Your task to perform on an android device: turn off javascript in the chrome app Image 0: 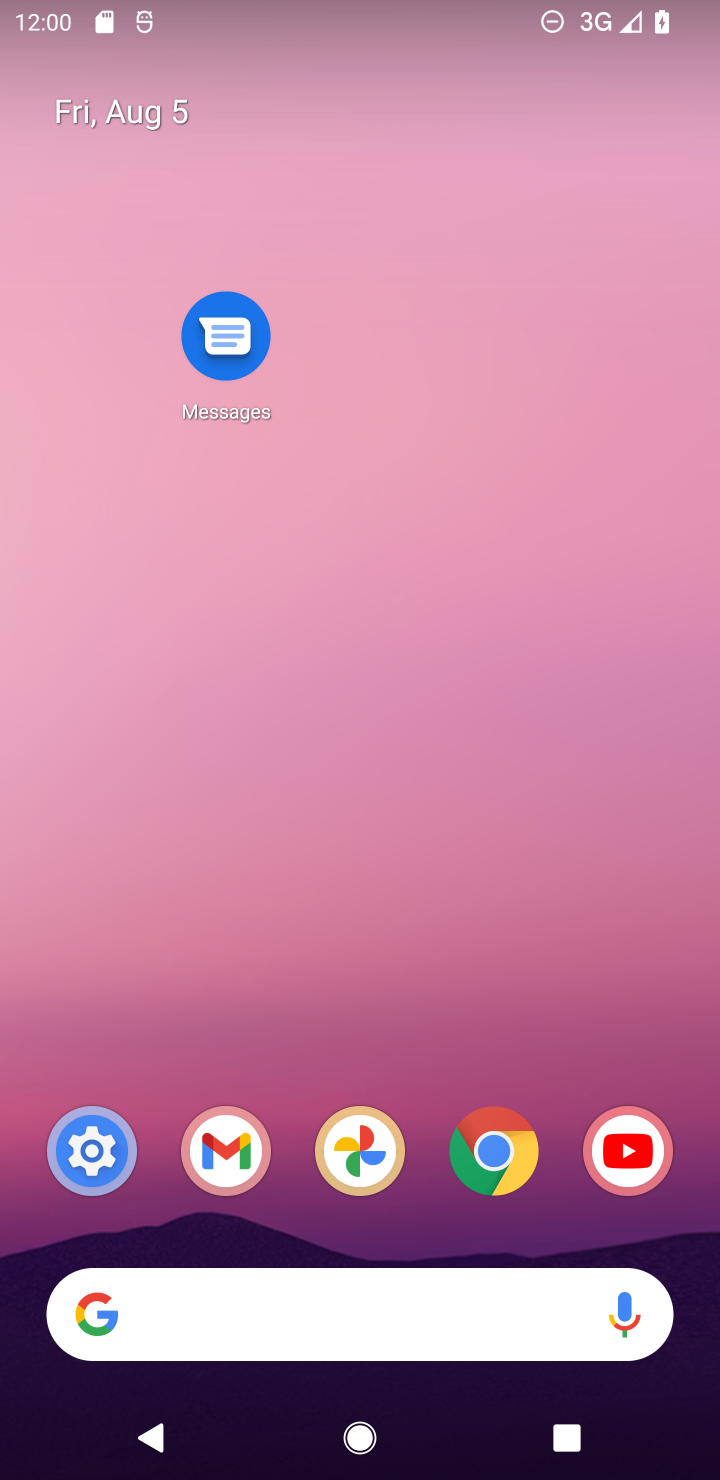
Step 0: click (494, 1154)
Your task to perform on an android device: turn off javascript in the chrome app Image 1: 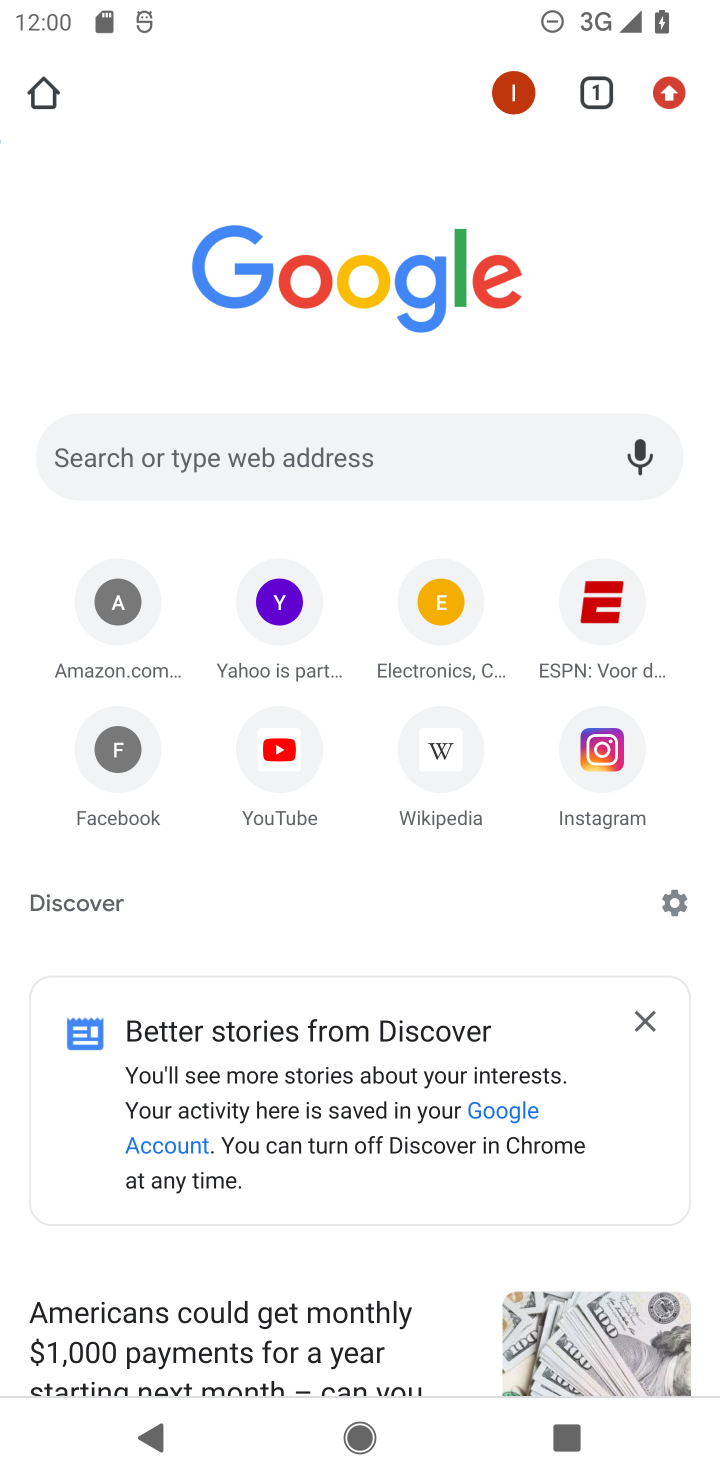
Step 1: click (671, 94)
Your task to perform on an android device: turn off javascript in the chrome app Image 2: 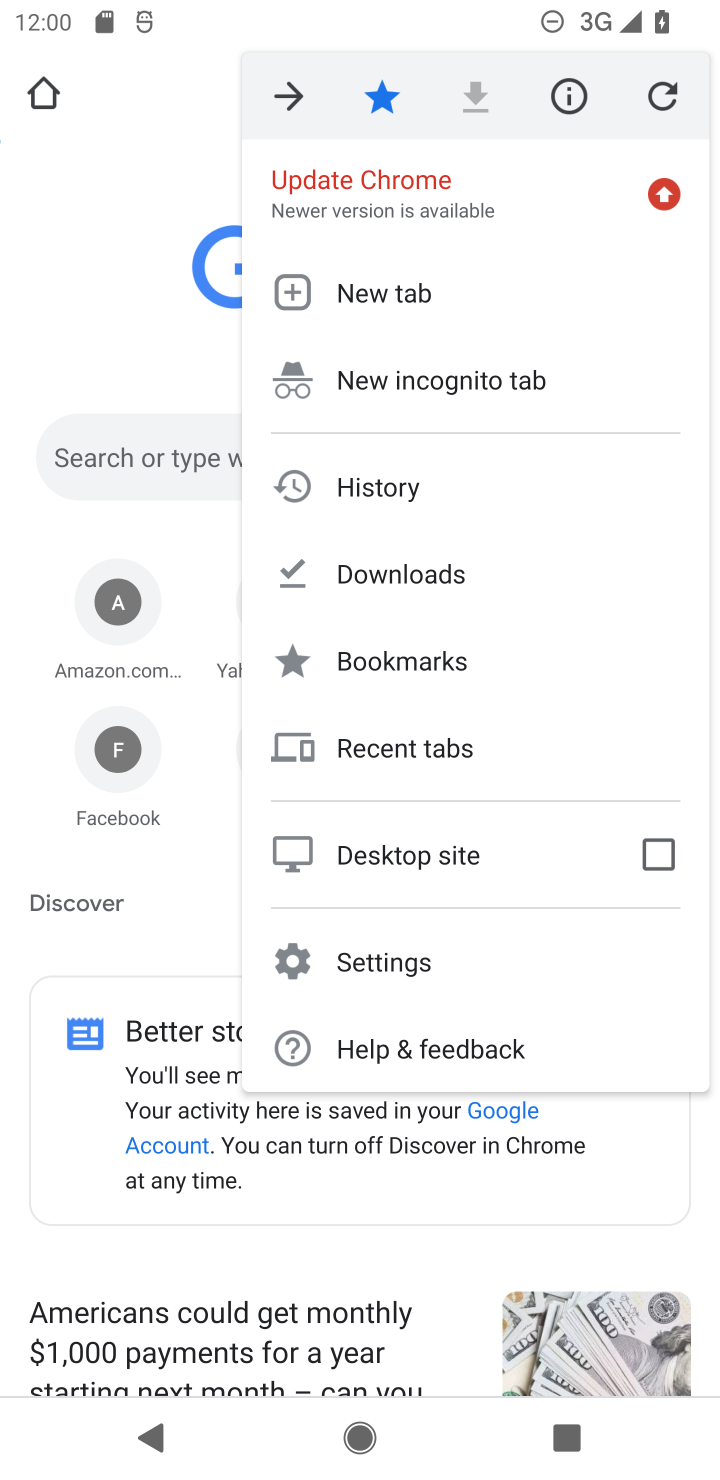
Step 2: click (399, 950)
Your task to perform on an android device: turn off javascript in the chrome app Image 3: 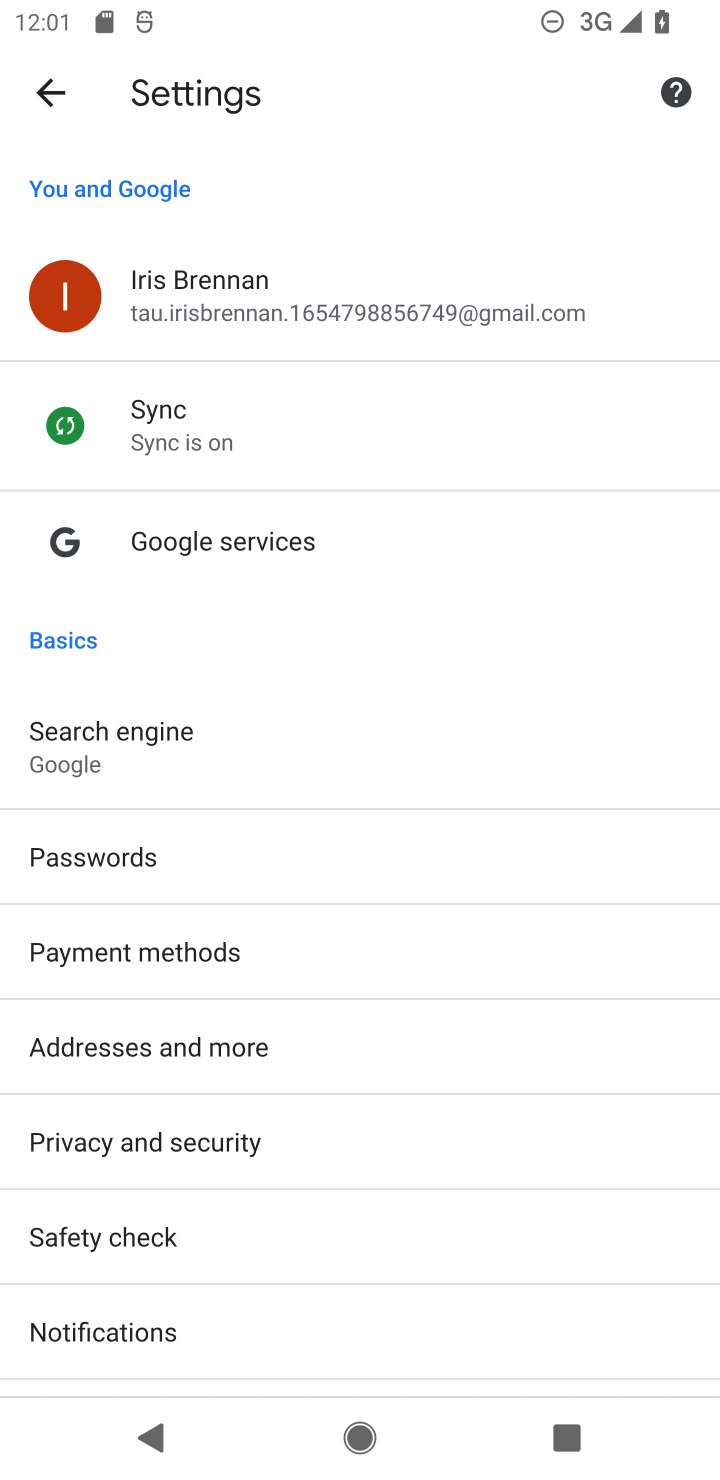
Step 3: click (211, 493)
Your task to perform on an android device: turn off javascript in the chrome app Image 4: 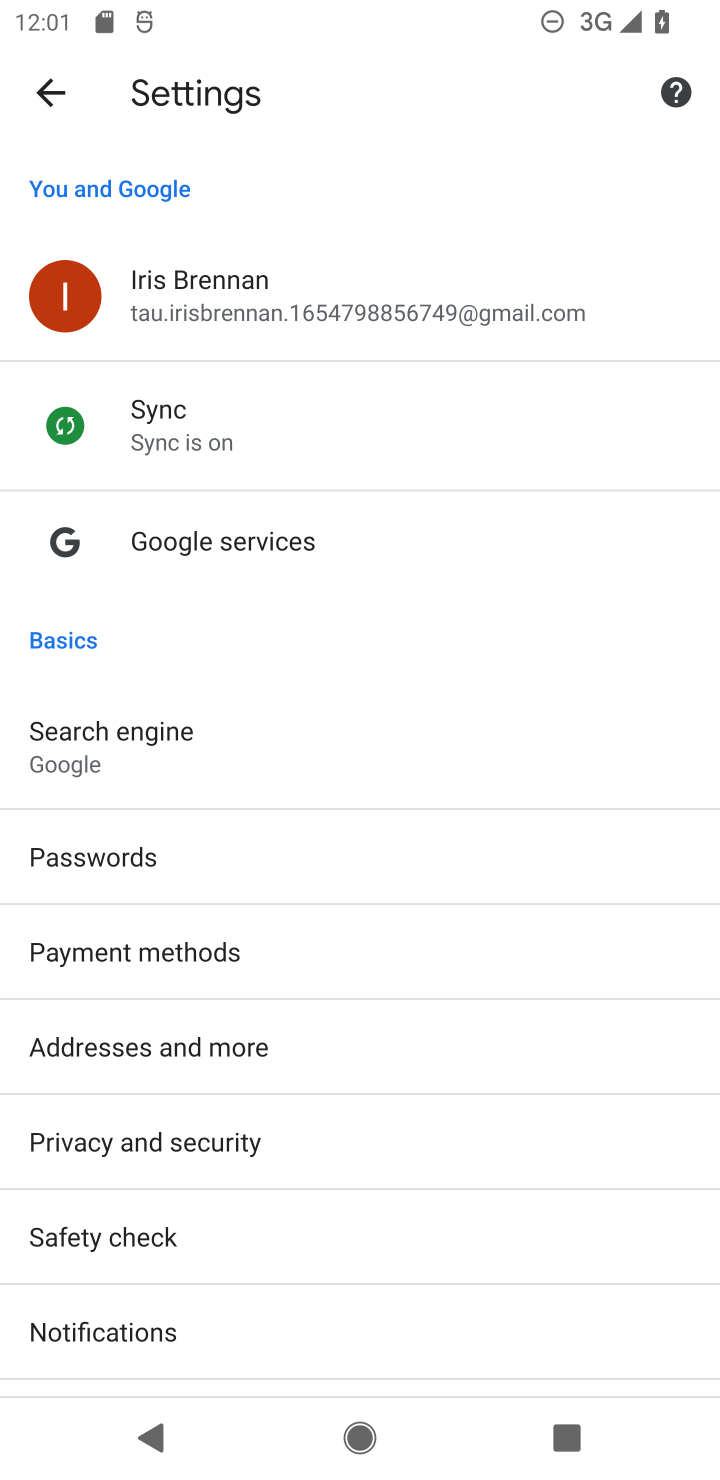
Step 4: drag from (133, 1057) to (133, 718)
Your task to perform on an android device: turn off javascript in the chrome app Image 5: 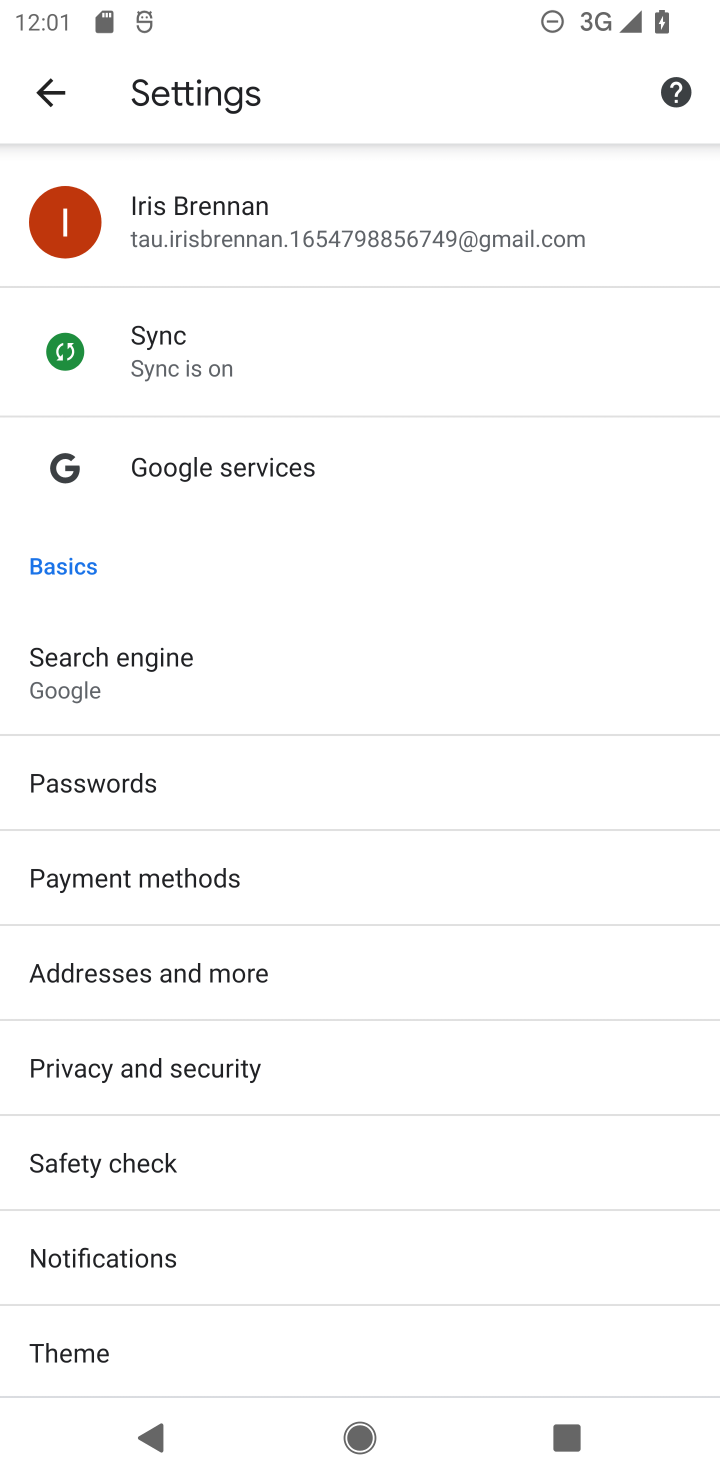
Step 5: drag from (108, 1082) to (132, 653)
Your task to perform on an android device: turn off javascript in the chrome app Image 6: 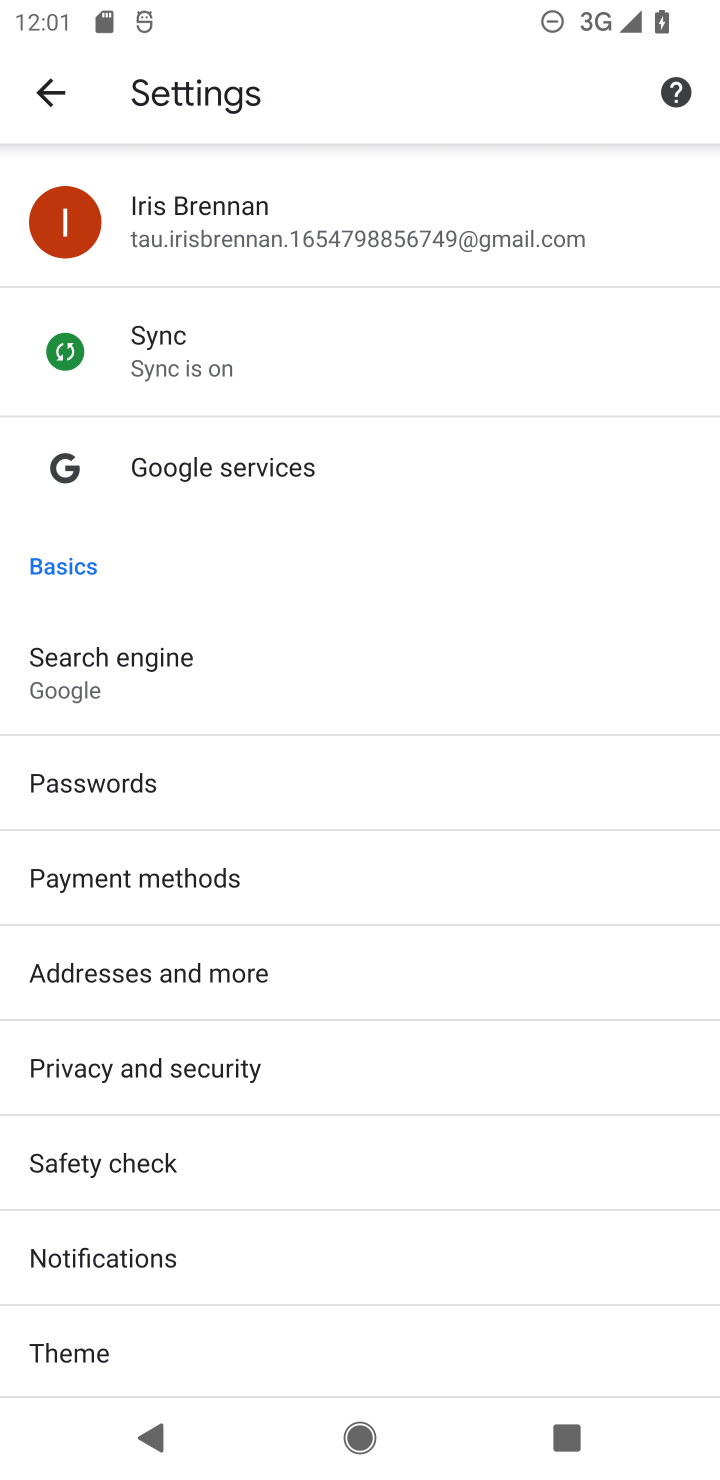
Step 6: click (281, 579)
Your task to perform on an android device: turn off javascript in the chrome app Image 7: 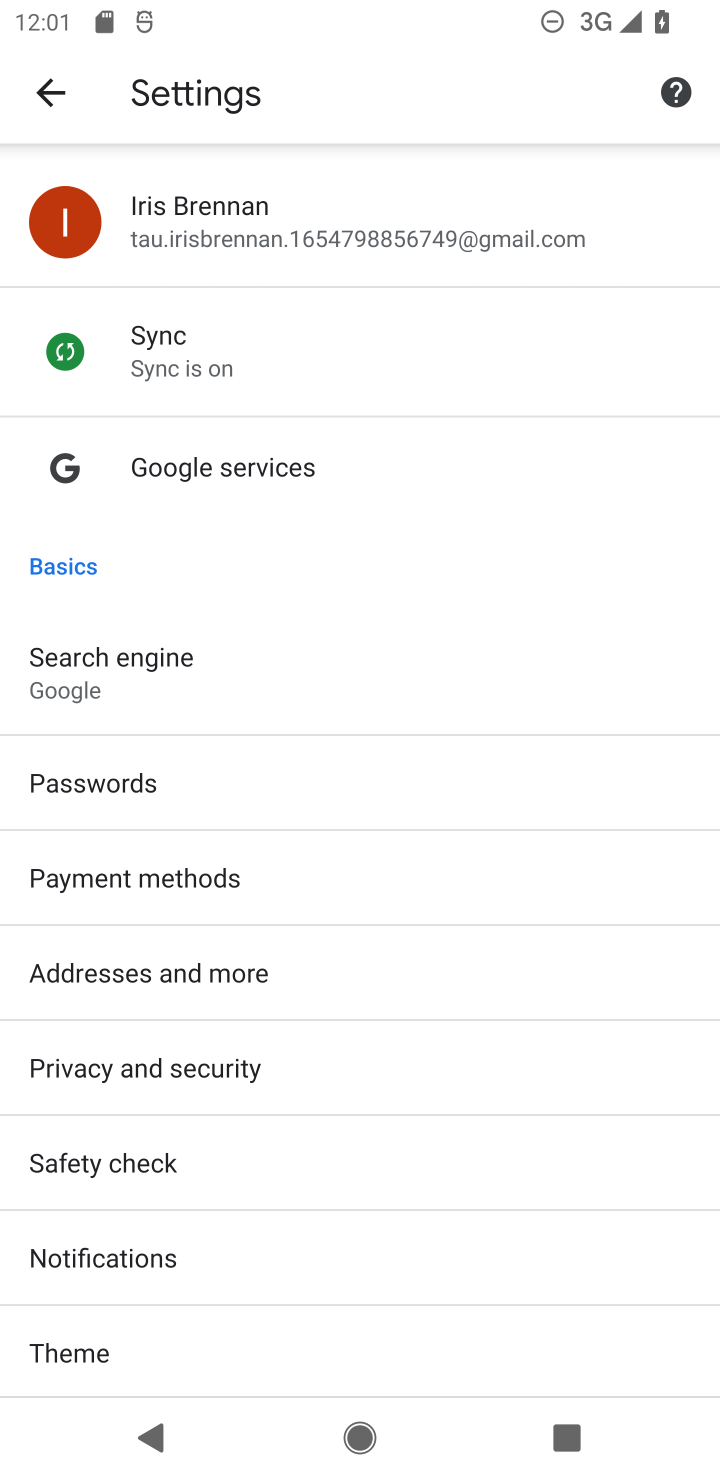
Step 7: click (310, 207)
Your task to perform on an android device: turn off javascript in the chrome app Image 8: 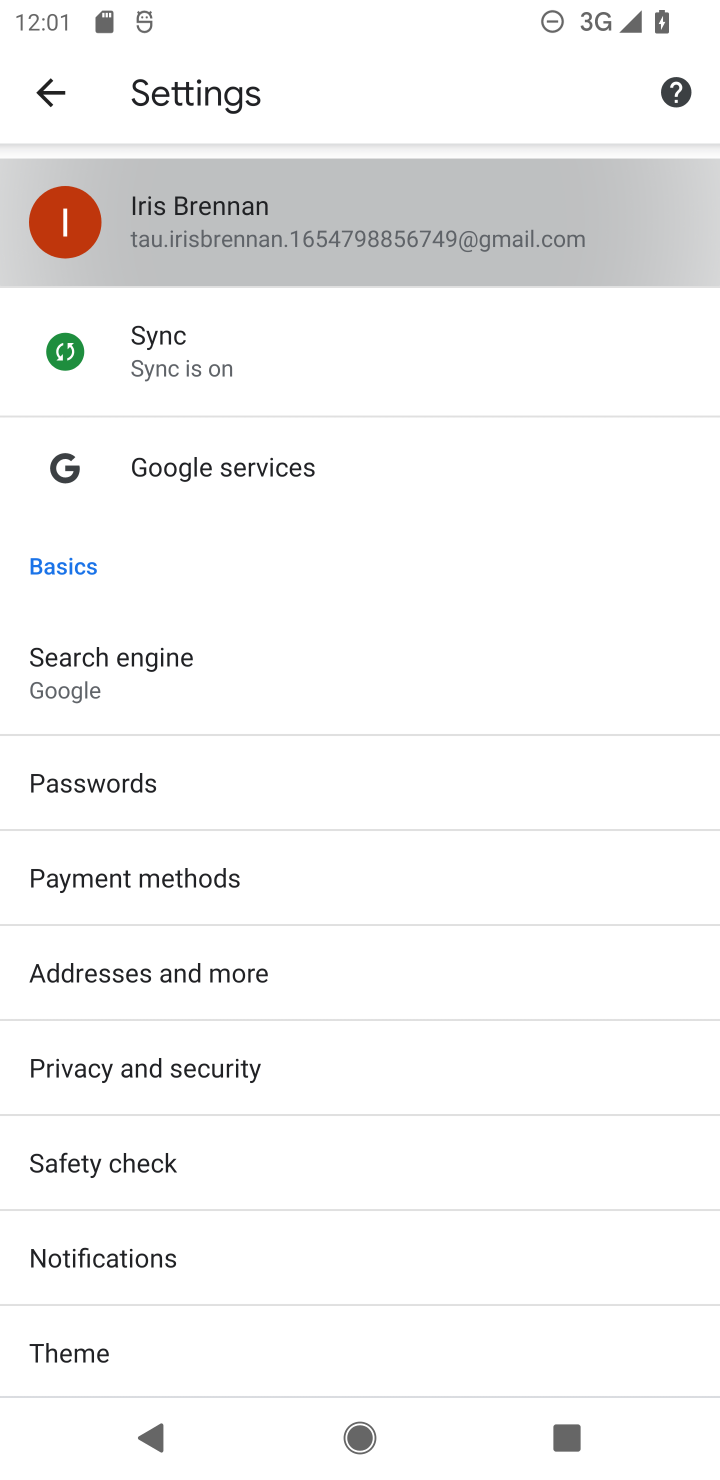
Step 8: drag from (238, 1217) to (383, 681)
Your task to perform on an android device: turn off javascript in the chrome app Image 9: 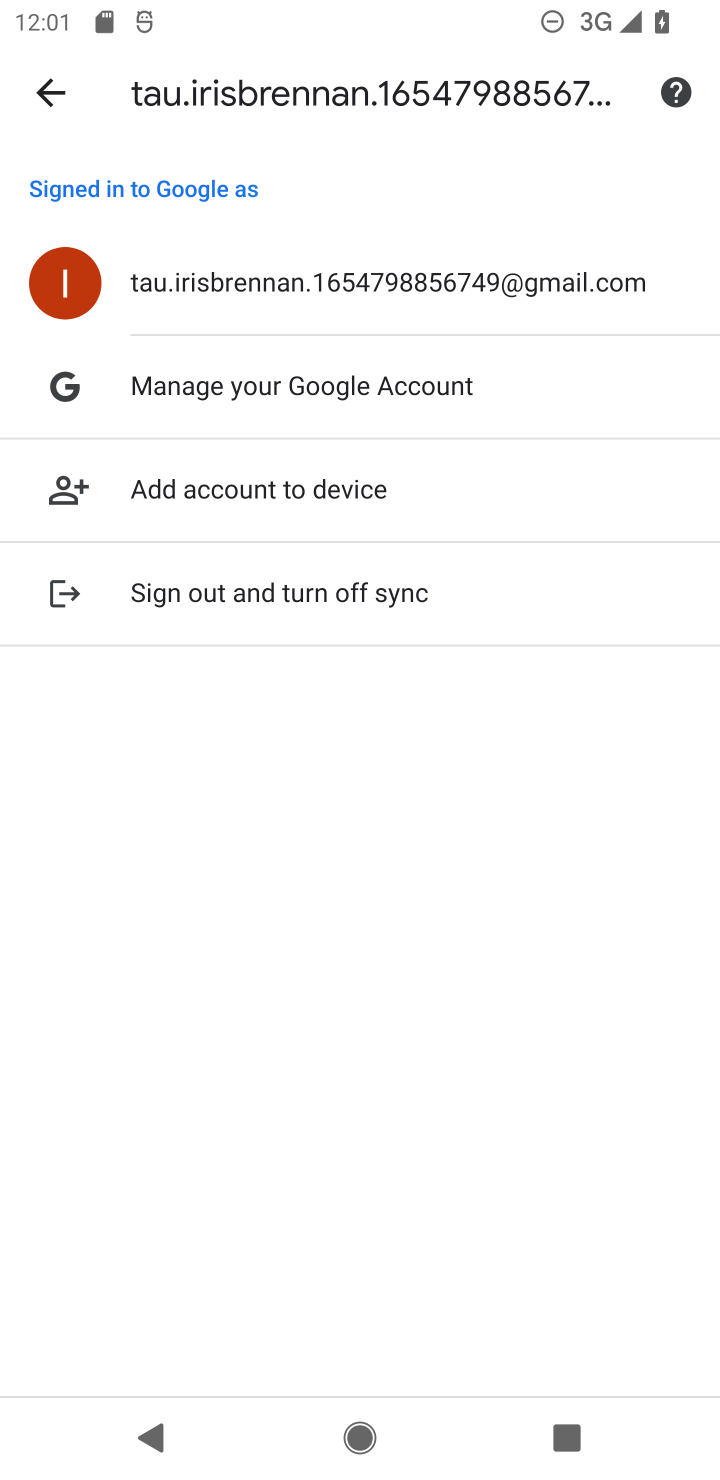
Step 9: drag from (185, 1166) to (270, 483)
Your task to perform on an android device: turn off javascript in the chrome app Image 10: 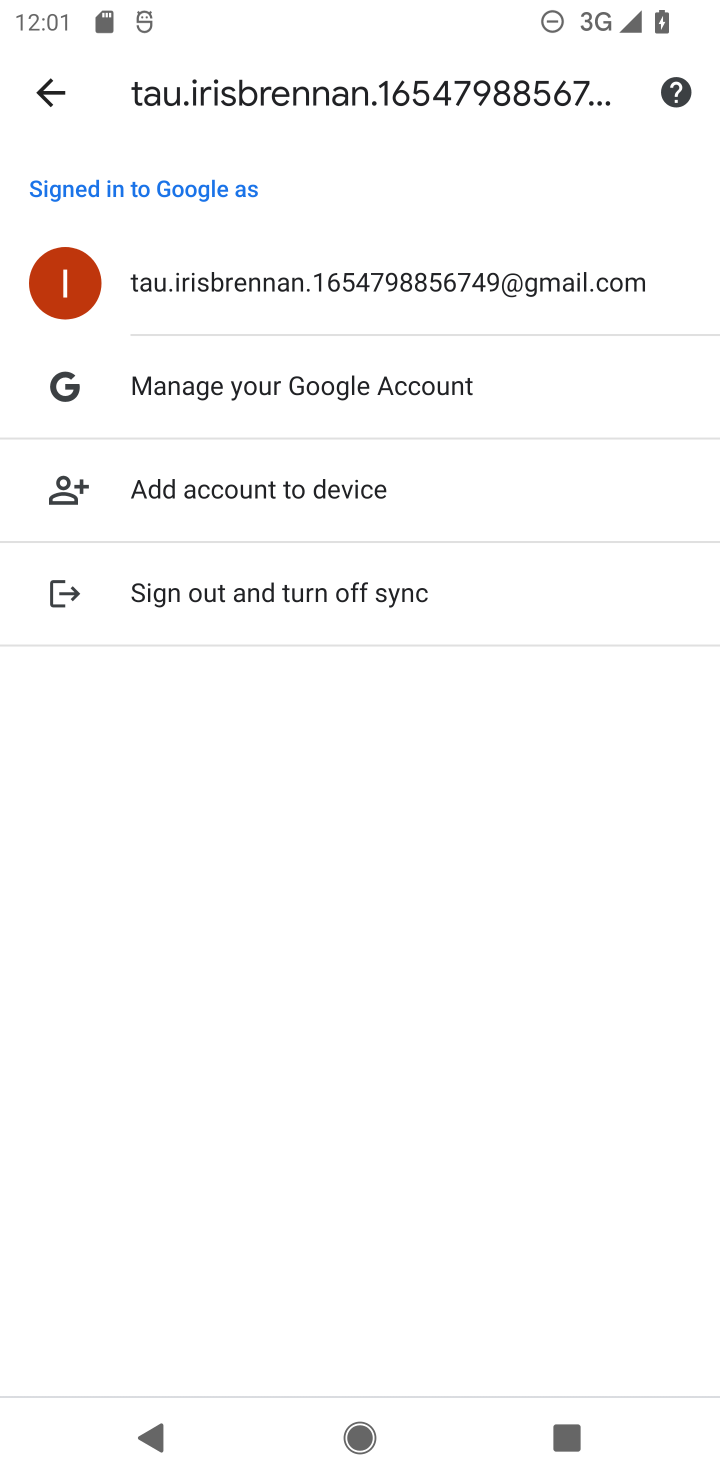
Step 10: click (218, 385)
Your task to perform on an android device: turn off javascript in the chrome app Image 11: 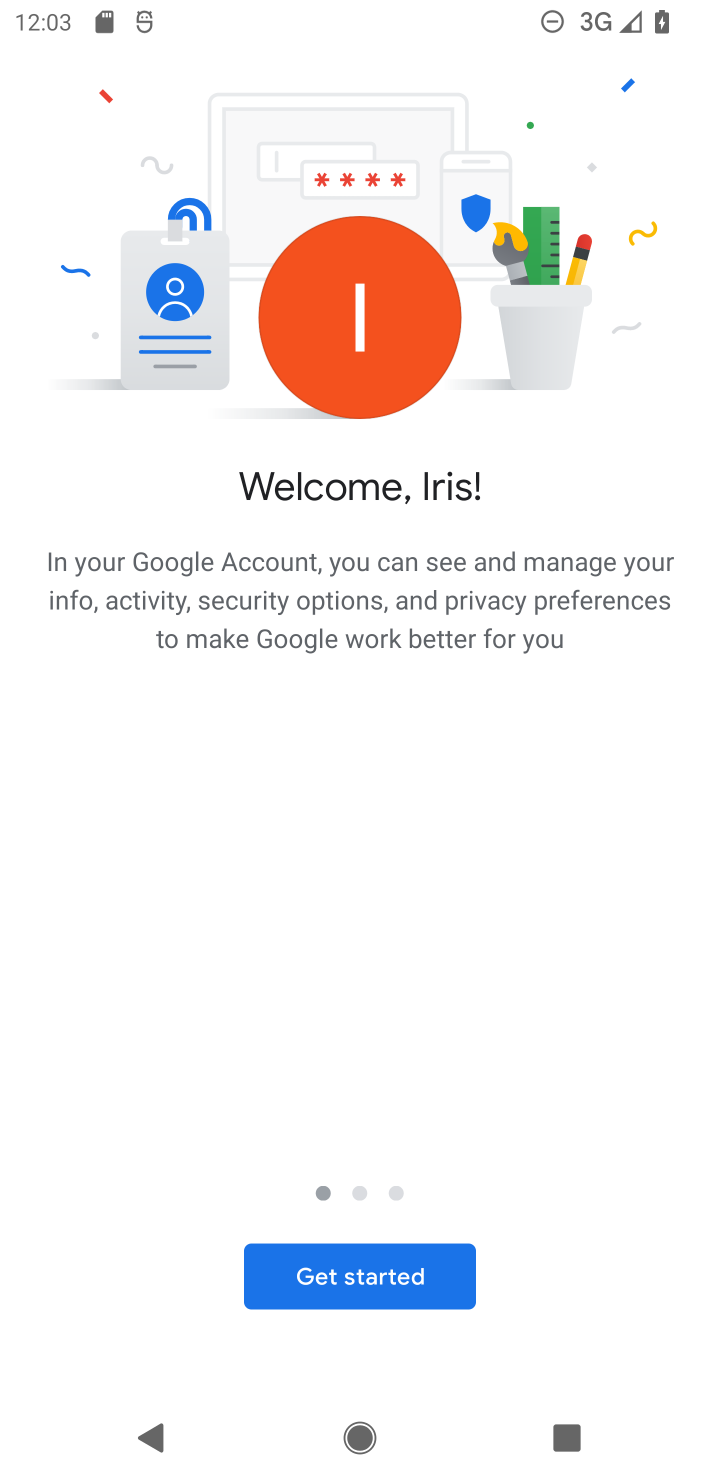
Step 11: press home button
Your task to perform on an android device: turn off javascript in the chrome app Image 12: 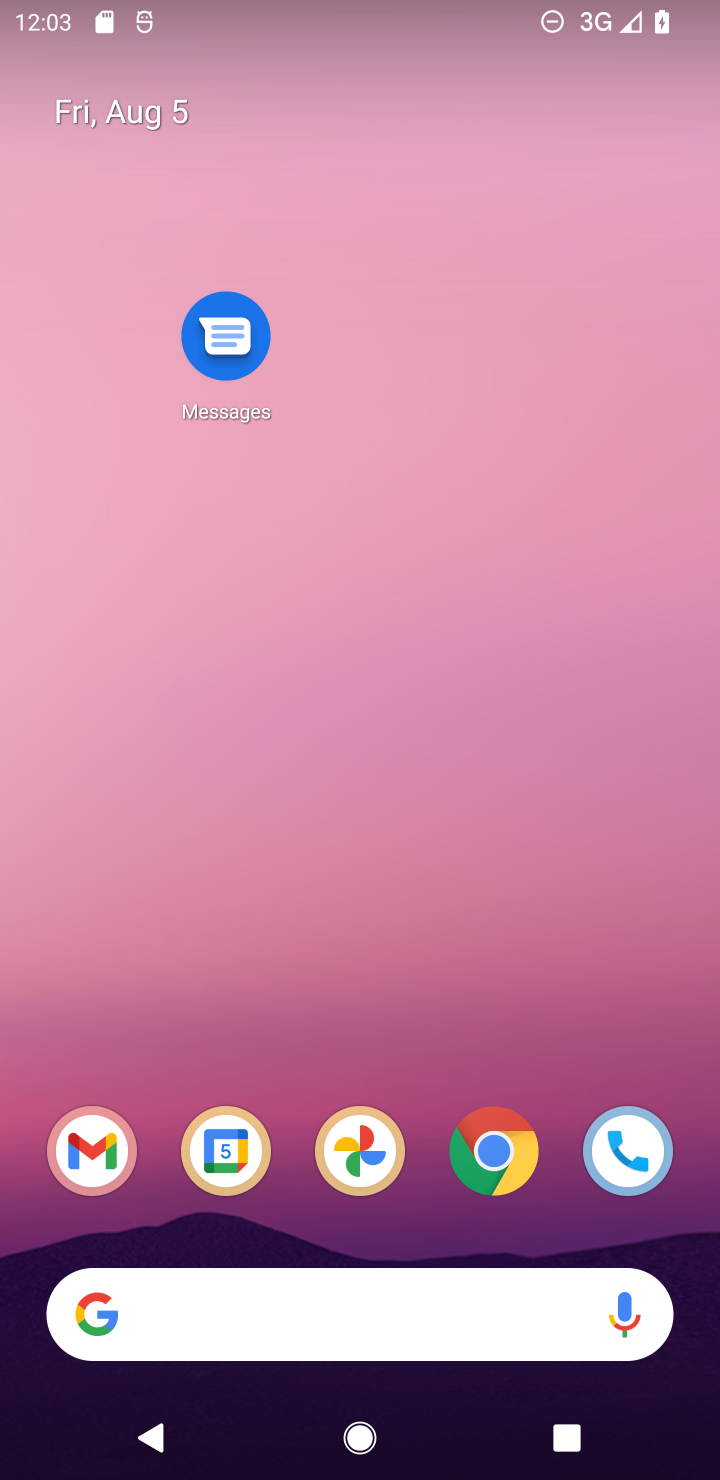
Step 12: click (505, 1140)
Your task to perform on an android device: turn off javascript in the chrome app Image 13: 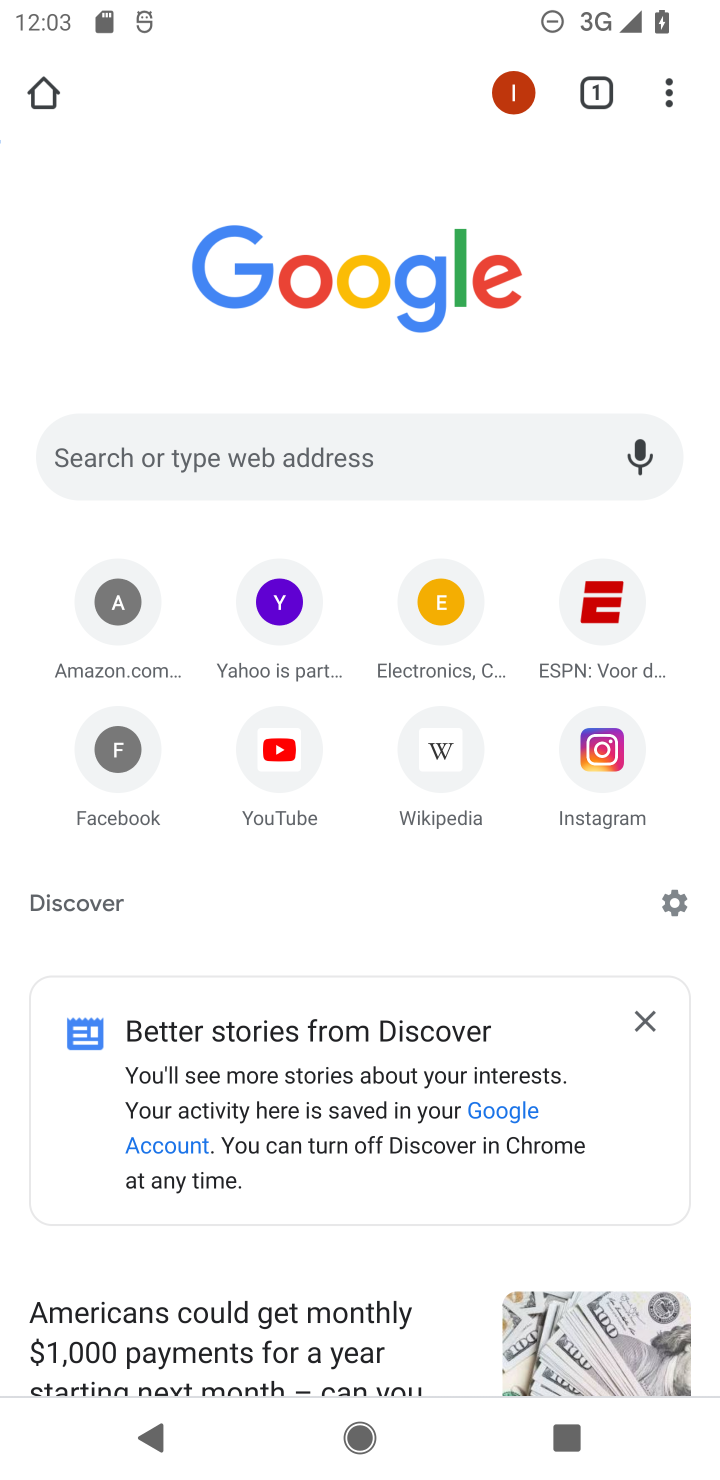
Step 13: click (661, 88)
Your task to perform on an android device: turn off javascript in the chrome app Image 14: 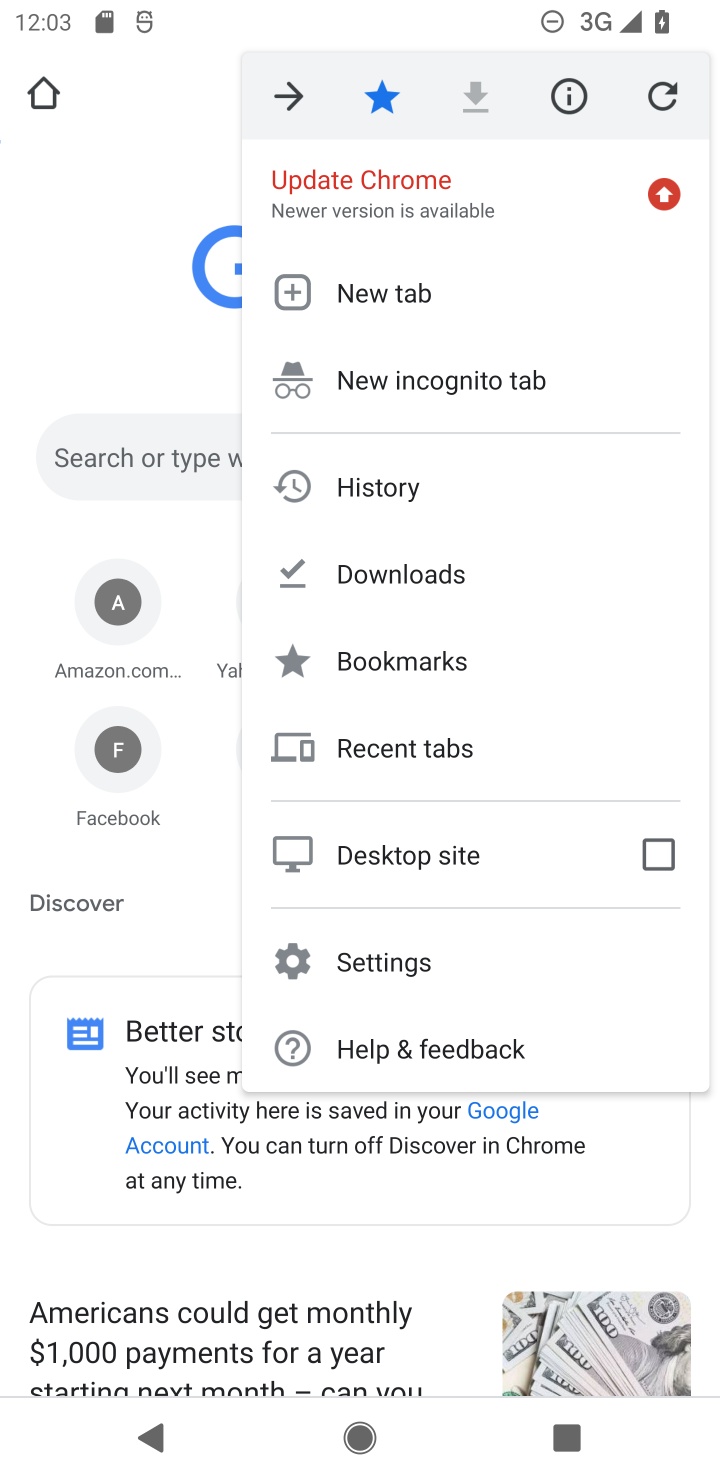
Step 14: click (370, 955)
Your task to perform on an android device: turn off javascript in the chrome app Image 15: 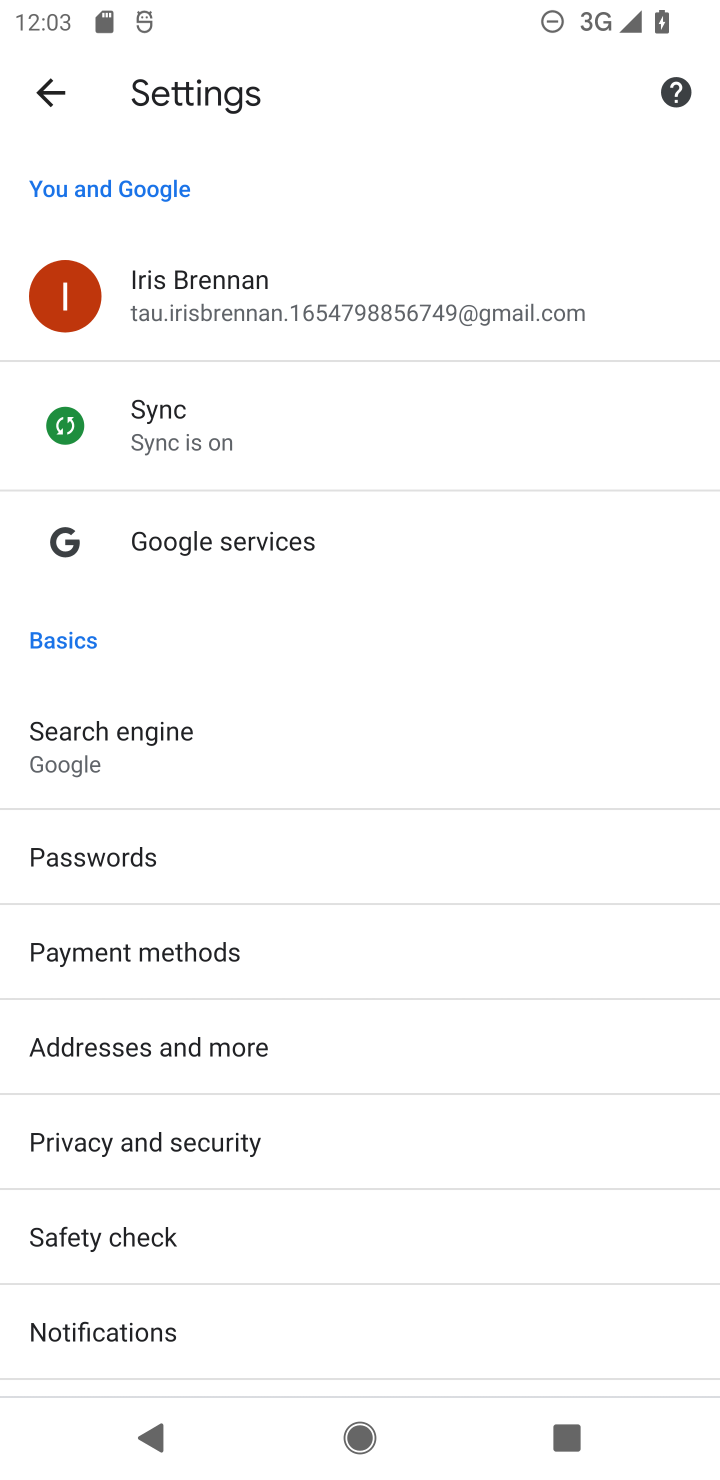
Step 15: drag from (272, 1099) to (305, 344)
Your task to perform on an android device: turn off javascript in the chrome app Image 16: 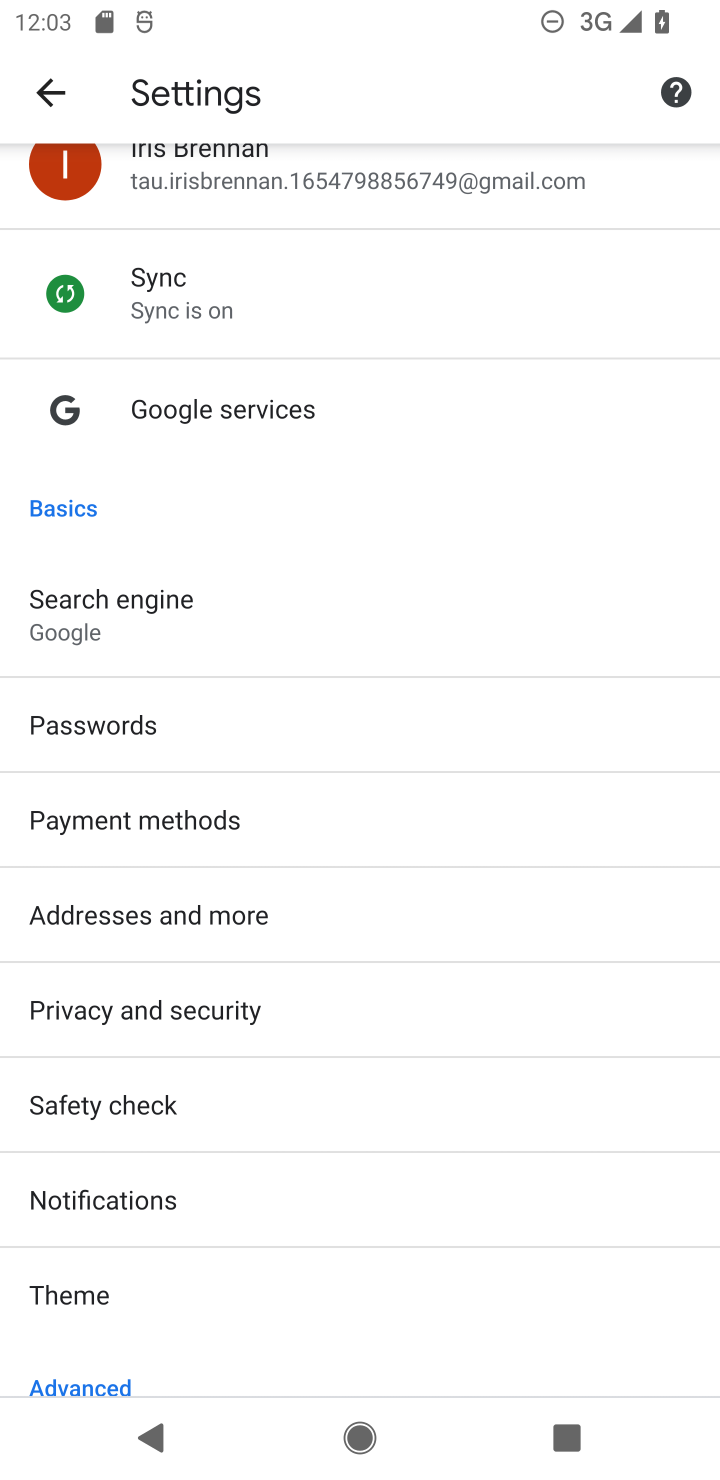
Step 16: drag from (154, 761) to (174, 665)
Your task to perform on an android device: turn off javascript in the chrome app Image 17: 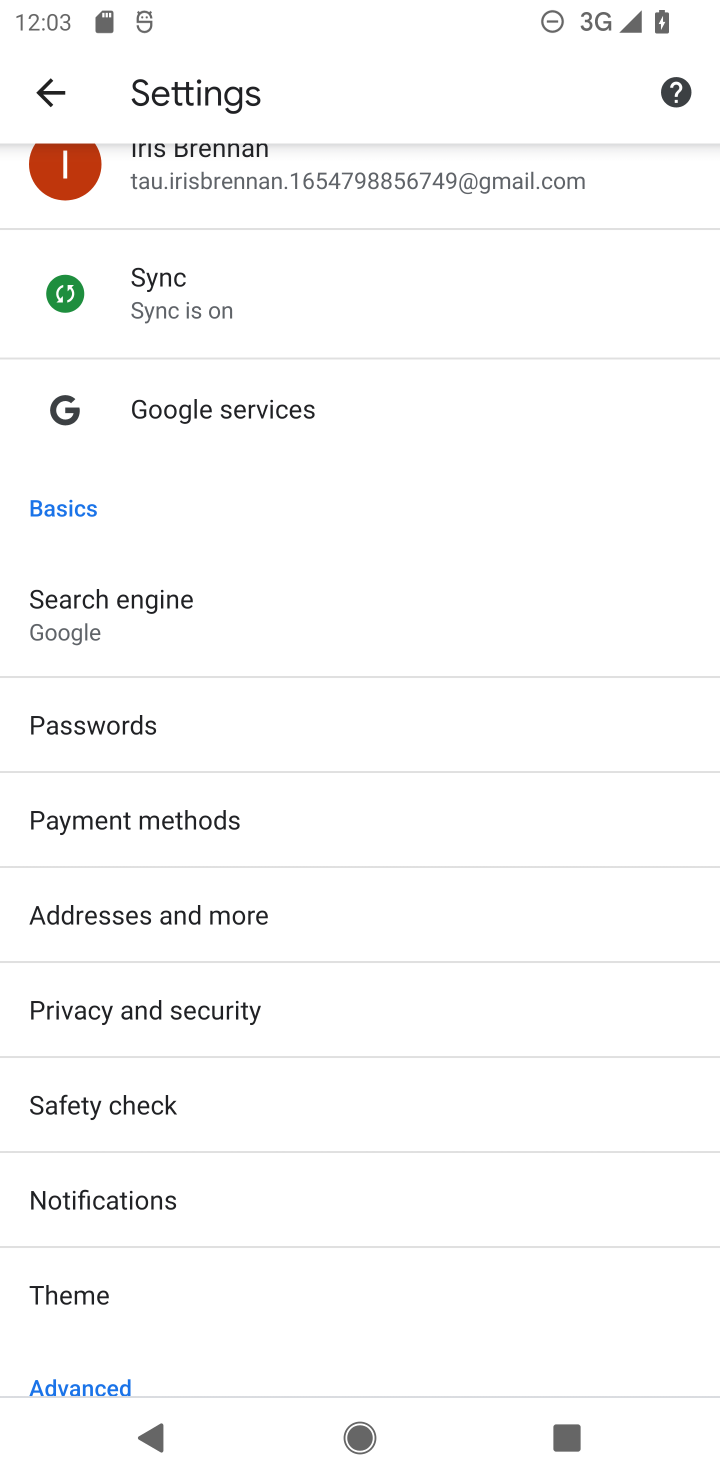
Step 17: drag from (168, 1277) to (168, 596)
Your task to perform on an android device: turn off javascript in the chrome app Image 18: 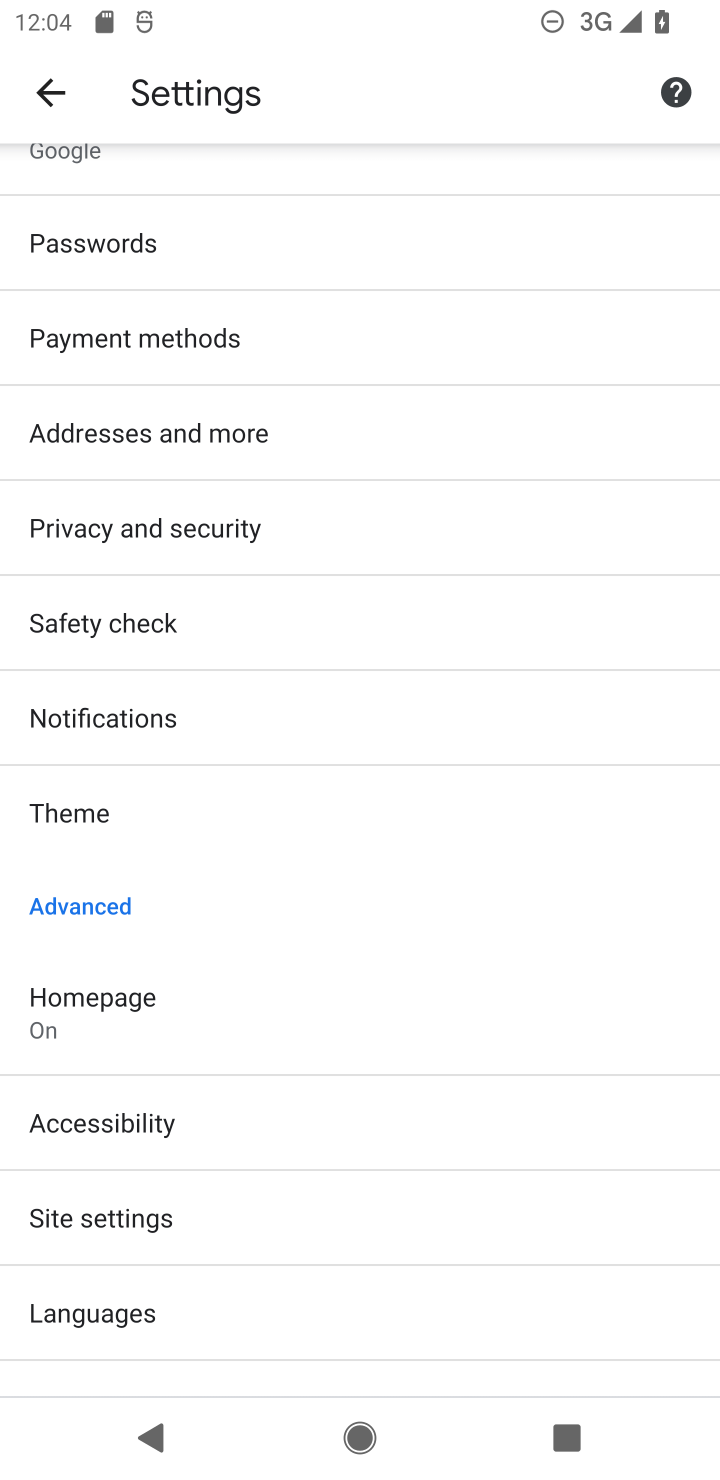
Step 18: click (123, 1206)
Your task to perform on an android device: turn off javascript in the chrome app Image 19: 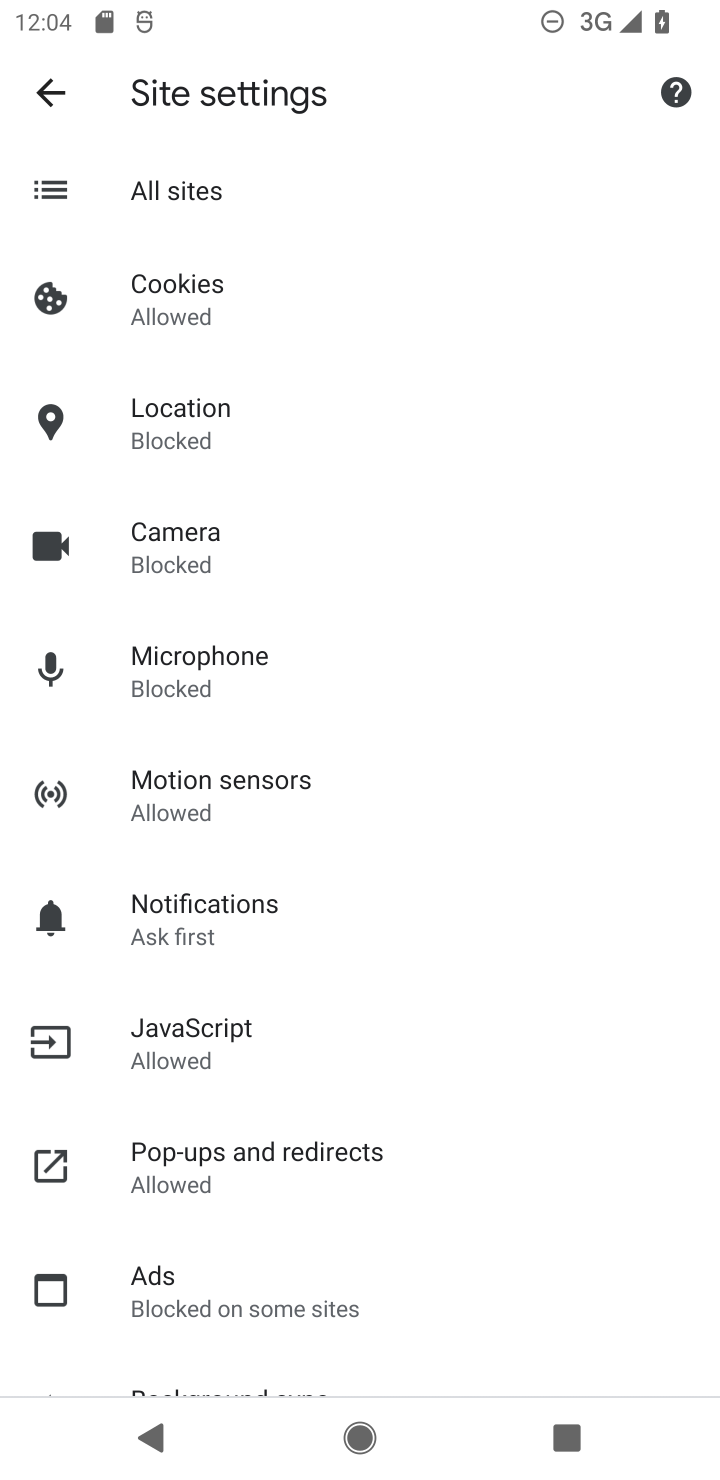
Step 19: click (164, 1032)
Your task to perform on an android device: turn off javascript in the chrome app Image 20: 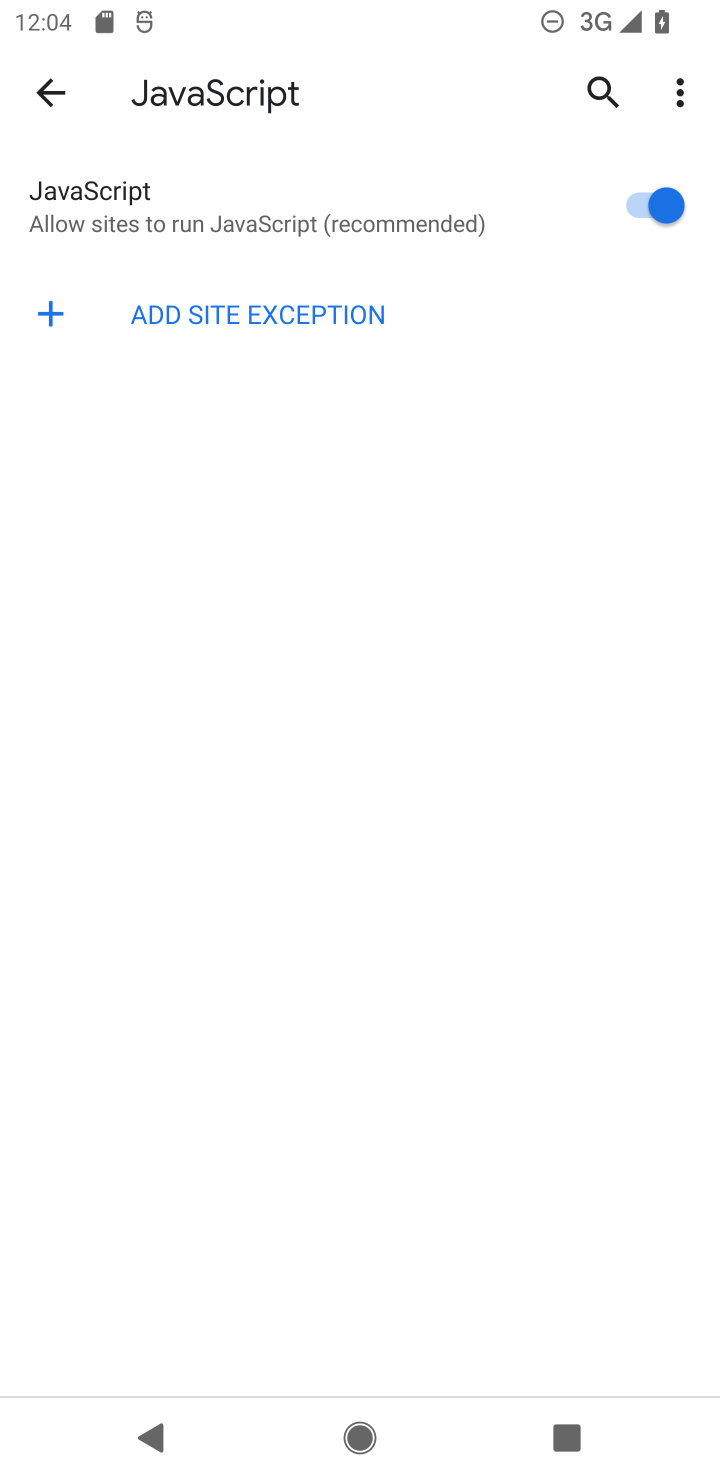
Step 20: click (640, 203)
Your task to perform on an android device: turn off javascript in the chrome app Image 21: 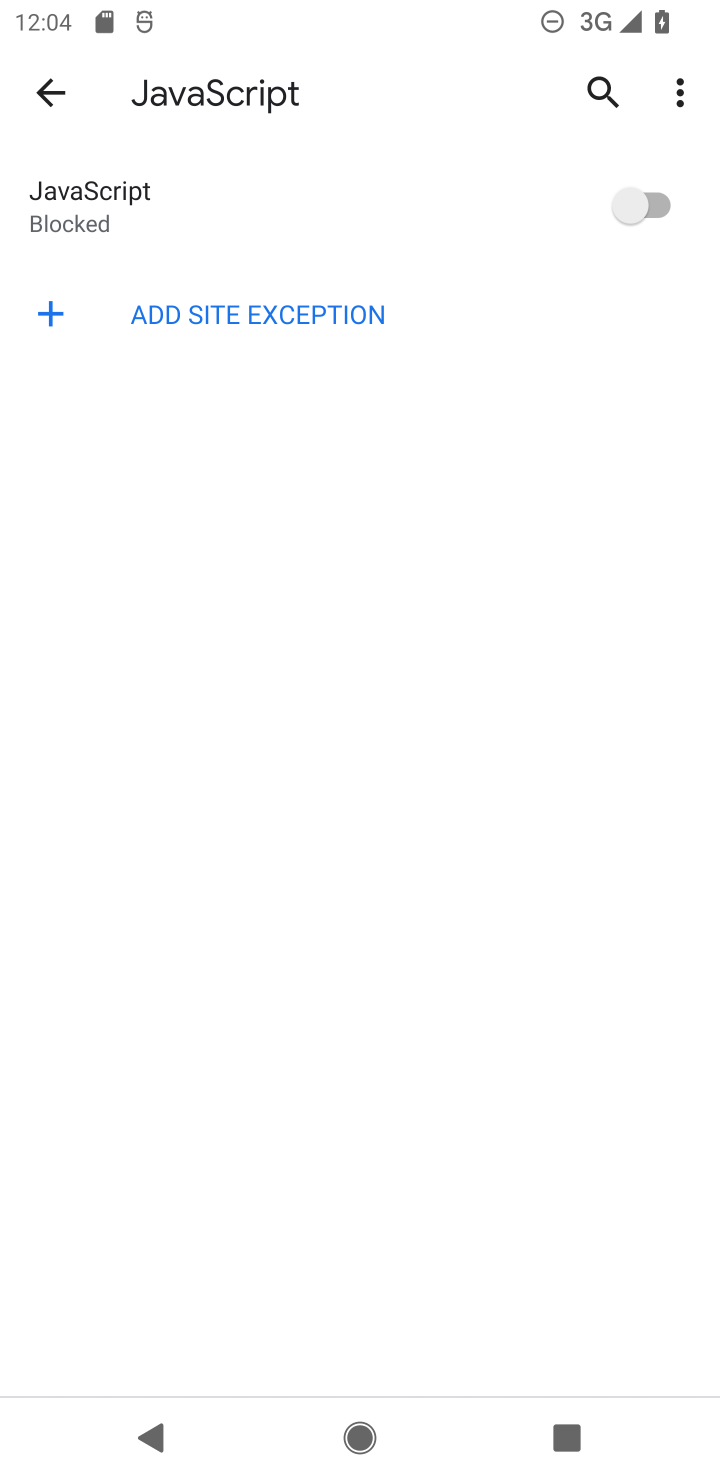
Step 21: task complete